Your task to perform on an android device: Open settings Image 0: 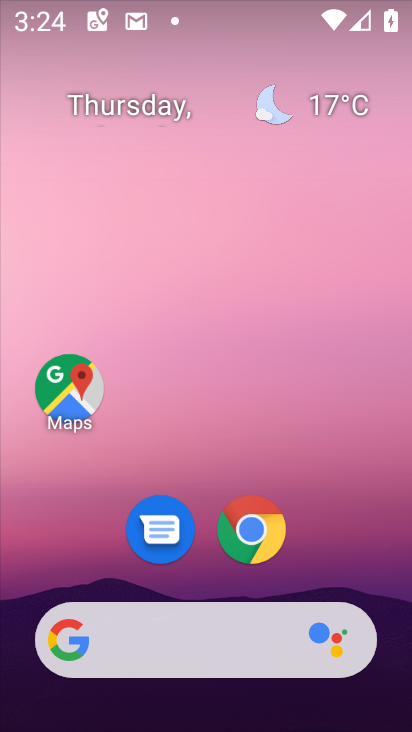
Step 0: drag from (188, 583) to (188, 275)
Your task to perform on an android device: Open settings Image 1: 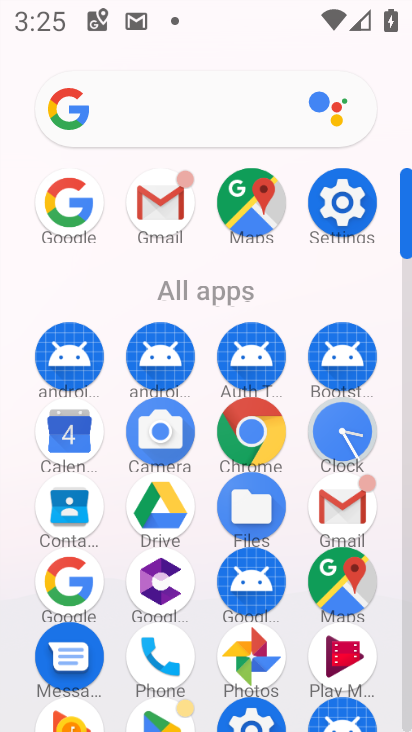
Step 1: click (334, 198)
Your task to perform on an android device: Open settings Image 2: 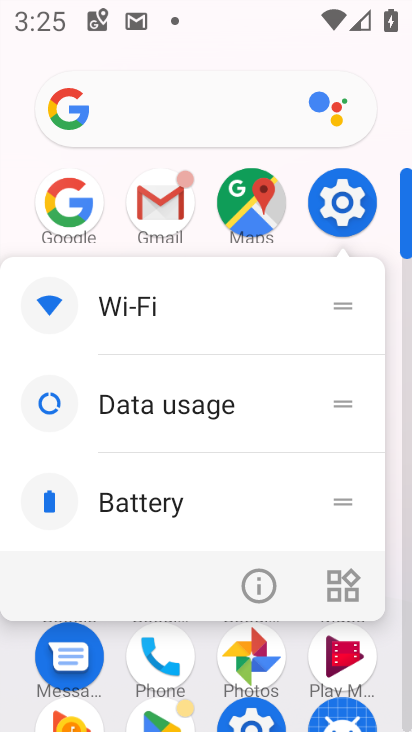
Step 2: click (339, 210)
Your task to perform on an android device: Open settings Image 3: 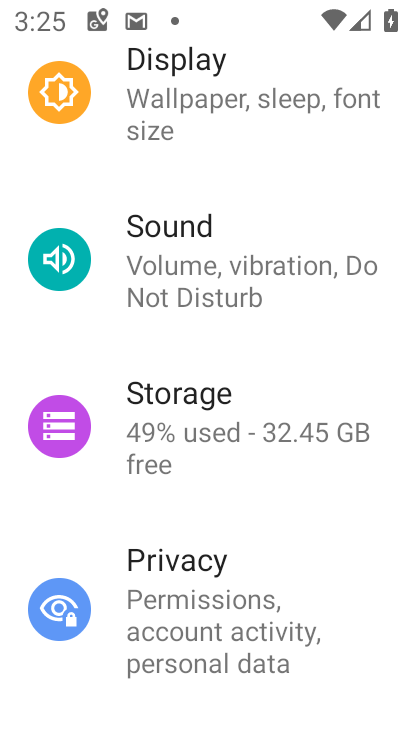
Step 3: task complete